Your task to perform on an android device: Open Google Maps Image 0: 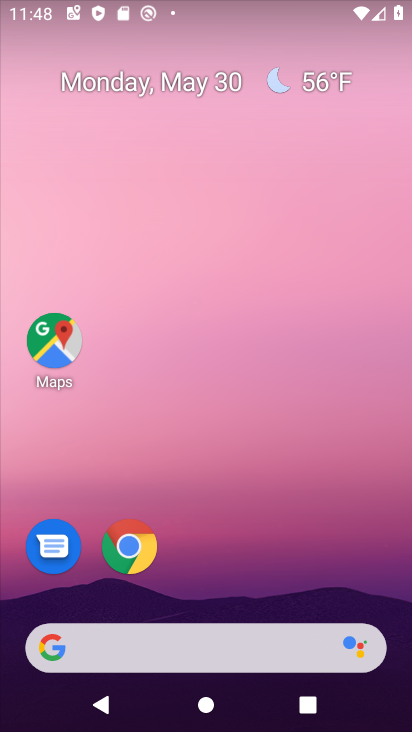
Step 0: click (57, 341)
Your task to perform on an android device: Open Google Maps Image 1: 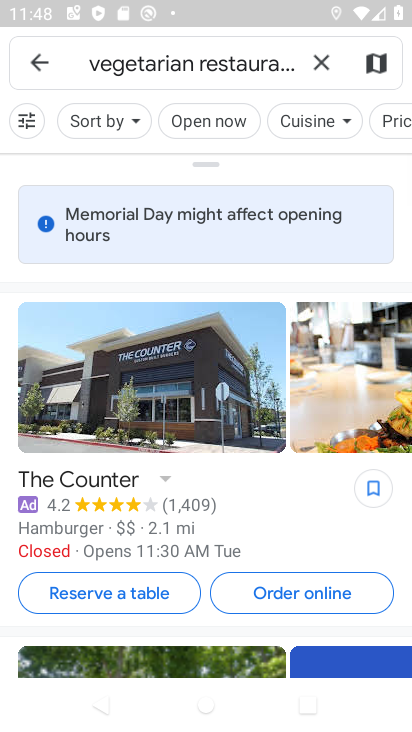
Step 1: click (321, 62)
Your task to perform on an android device: Open Google Maps Image 2: 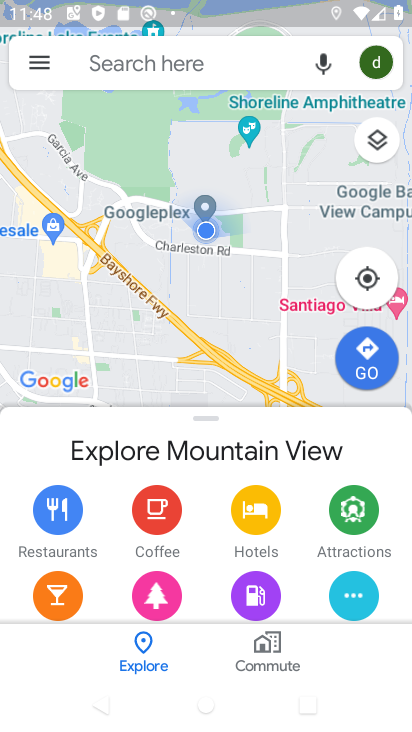
Step 2: task complete